Your task to perform on an android device: open device folders in google photos Image 0: 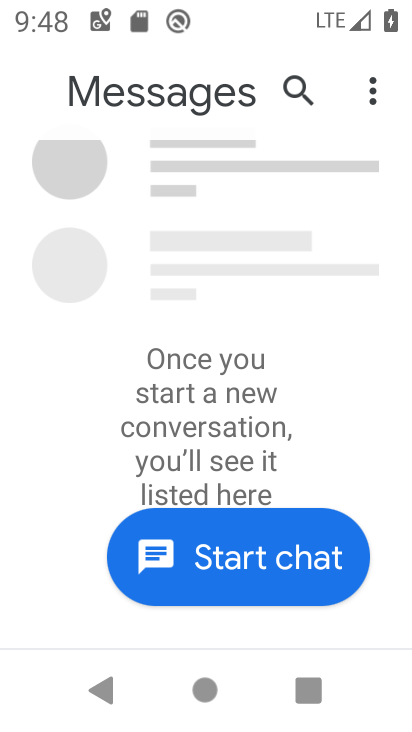
Step 0: press home button
Your task to perform on an android device: open device folders in google photos Image 1: 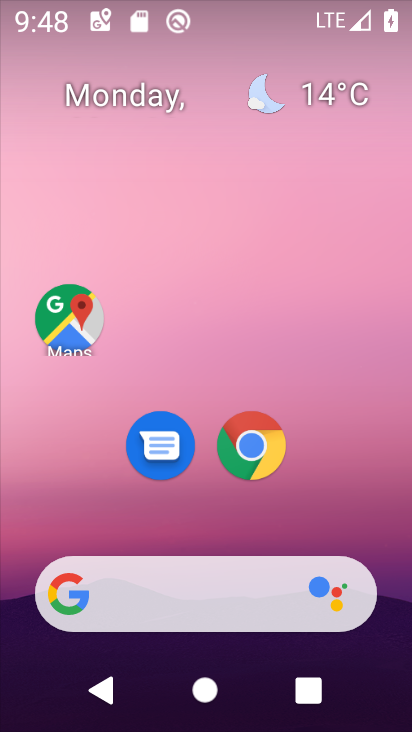
Step 1: drag from (204, 521) to (241, 56)
Your task to perform on an android device: open device folders in google photos Image 2: 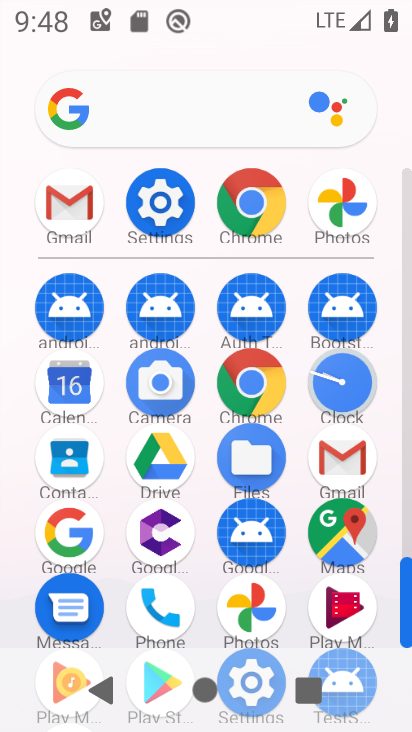
Step 2: click (339, 195)
Your task to perform on an android device: open device folders in google photos Image 3: 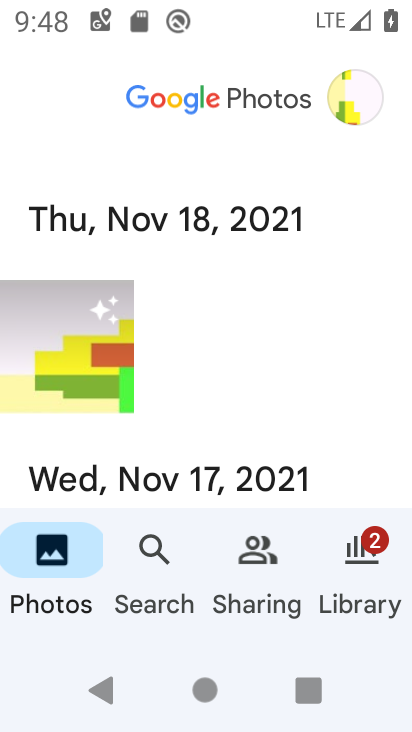
Step 3: click (151, 547)
Your task to perform on an android device: open device folders in google photos Image 4: 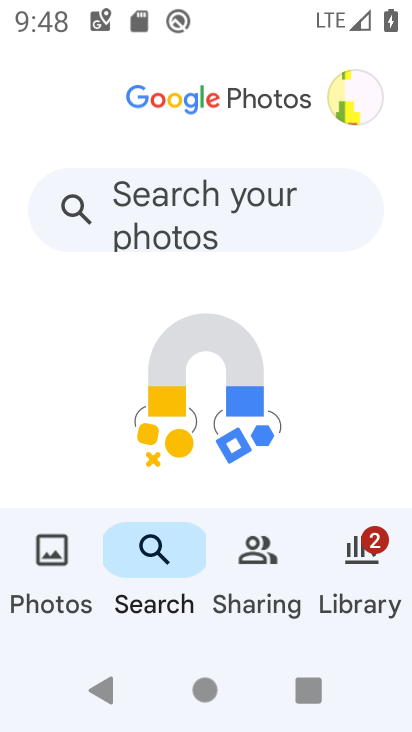
Step 4: click (190, 208)
Your task to perform on an android device: open device folders in google photos Image 5: 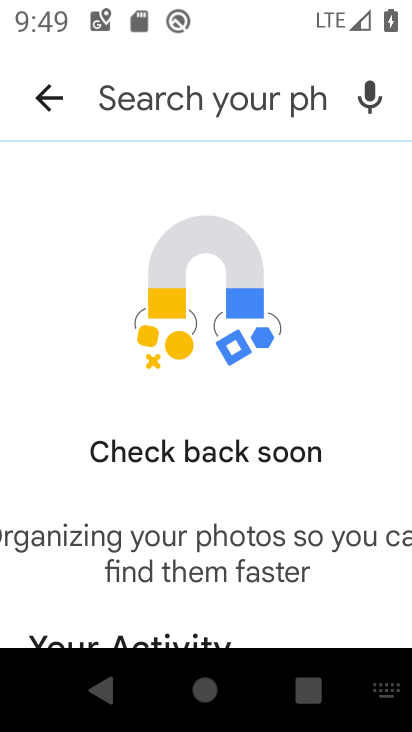
Step 5: type "device"
Your task to perform on an android device: open device folders in google photos Image 6: 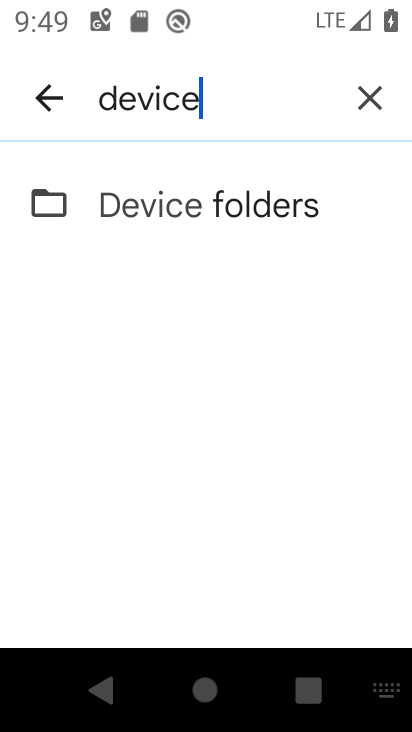
Step 6: type ""
Your task to perform on an android device: open device folders in google photos Image 7: 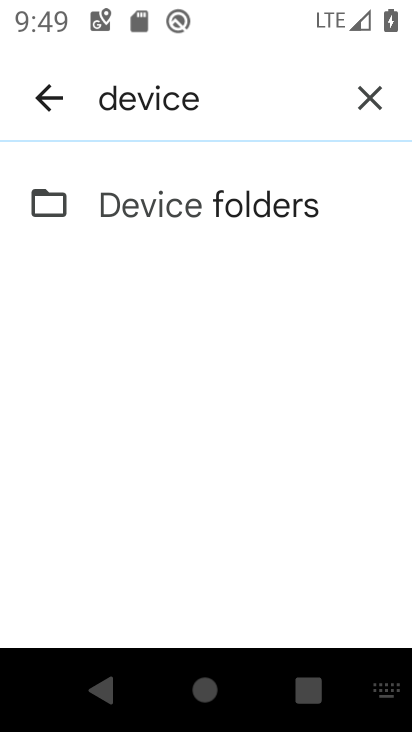
Step 7: click (209, 205)
Your task to perform on an android device: open device folders in google photos Image 8: 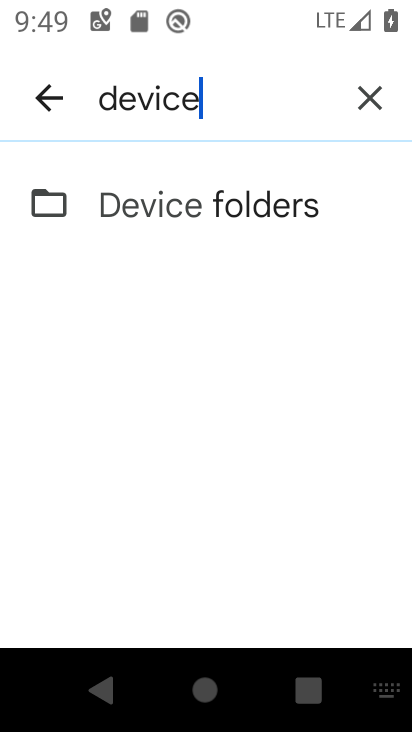
Step 8: click (75, 194)
Your task to perform on an android device: open device folders in google photos Image 9: 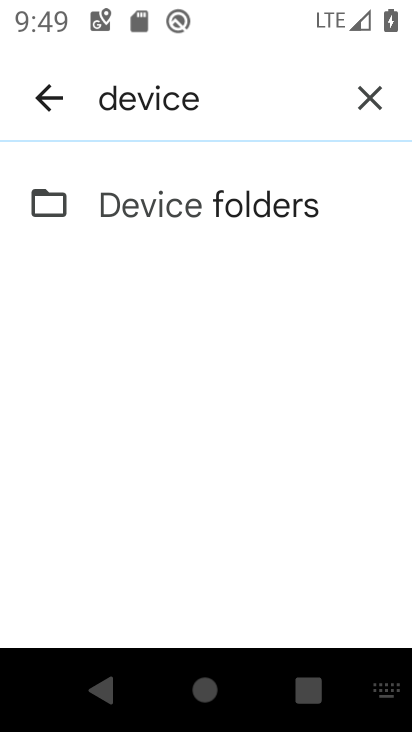
Step 9: click (83, 206)
Your task to perform on an android device: open device folders in google photos Image 10: 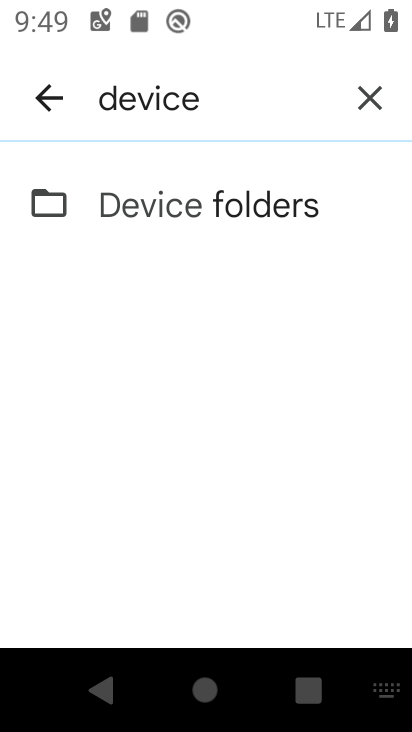
Step 10: click (83, 206)
Your task to perform on an android device: open device folders in google photos Image 11: 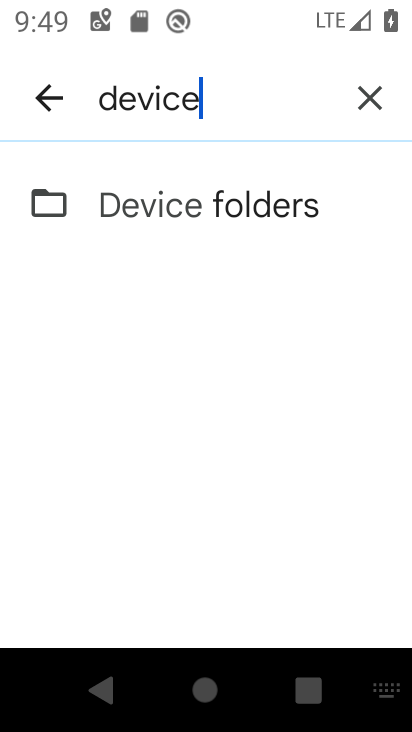
Step 11: task complete